Your task to perform on an android device: Search for Italian restaurants on Maps Image 0: 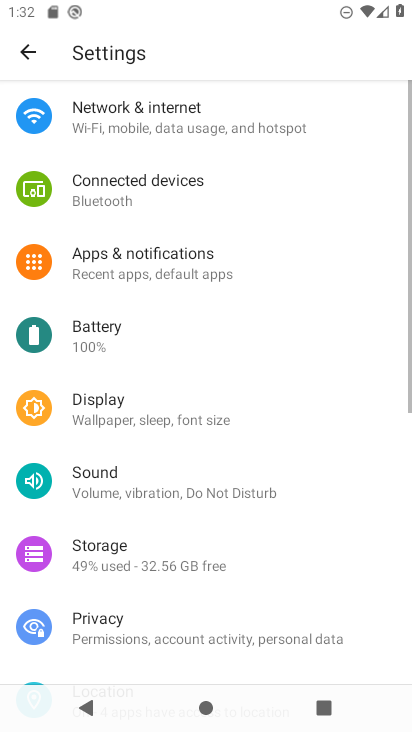
Step 0: click (126, 578)
Your task to perform on an android device: Search for Italian restaurants on Maps Image 1: 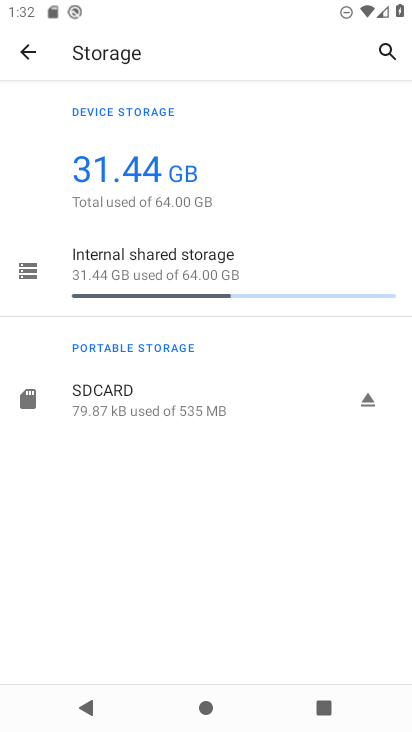
Step 1: press home button
Your task to perform on an android device: Search for Italian restaurants on Maps Image 2: 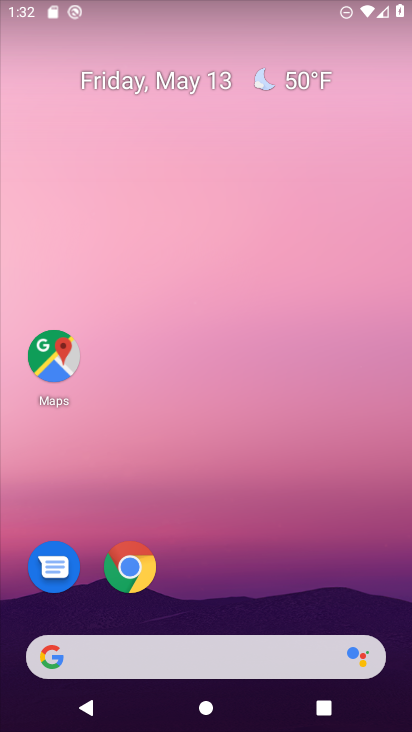
Step 2: click (59, 352)
Your task to perform on an android device: Search for Italian restaurants on Maps Image 3: 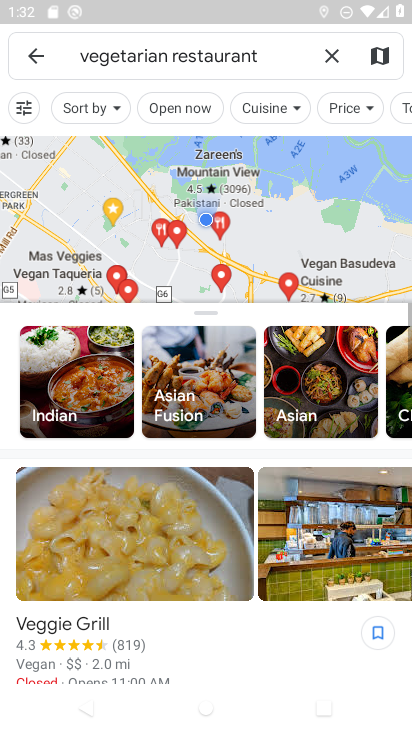
Step 3: click (327, 57)
Your task to perform on an android device: Search for Italian restaurants on Maps Image 4: 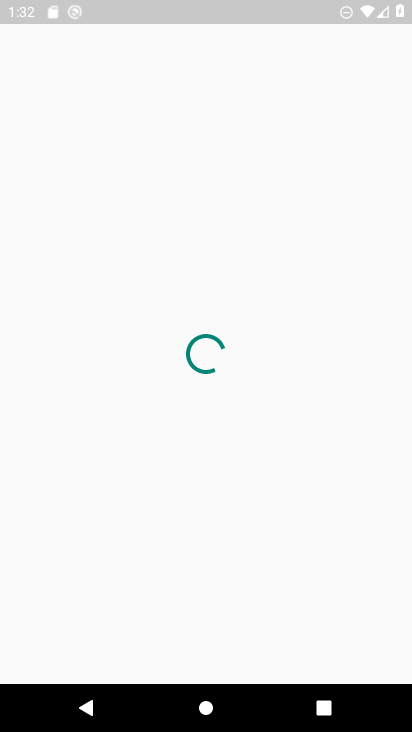
Step 4: click (268, 52)
Your task to perform on an android device: Search for Italian restaurants on Maps Image 5: 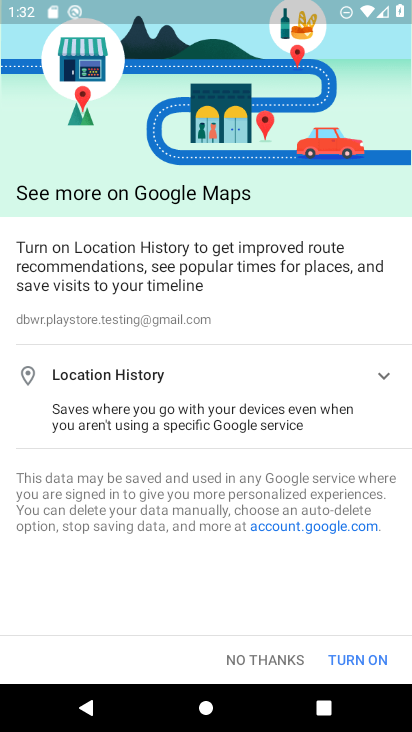
Step 5: click (348, 658)
Your task to perform on an android device: Search for Italian restaurants on Maps Image 6: 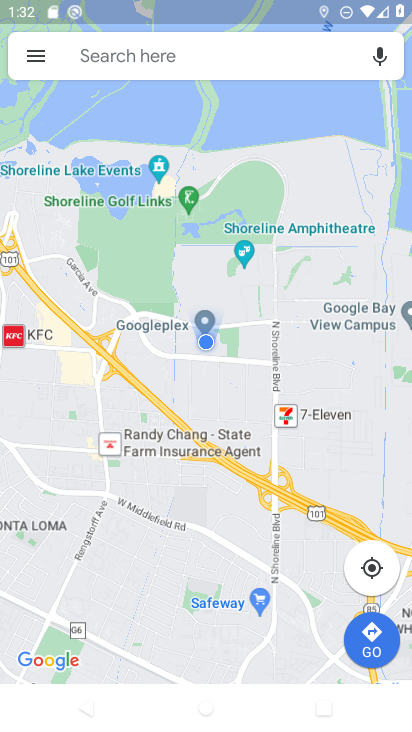
Step 6: click (130, 53)
Your task to perform on an android device: Search for Italian restaurants on Maps Image 7: 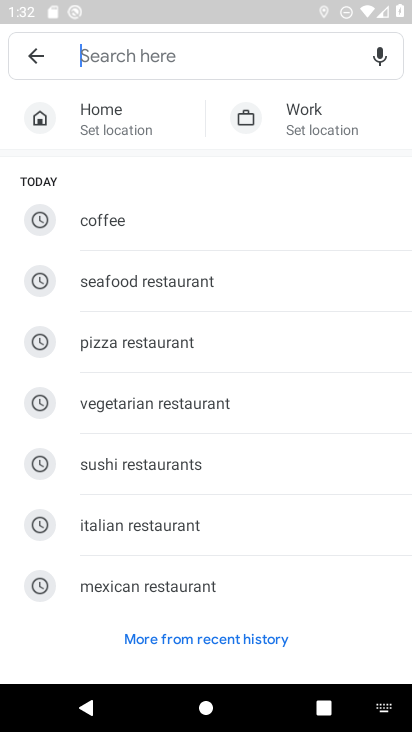
Step 7: click (151, 529)
Your task to perform on an android device: Search for Italian restaurants on Maps Image 8: 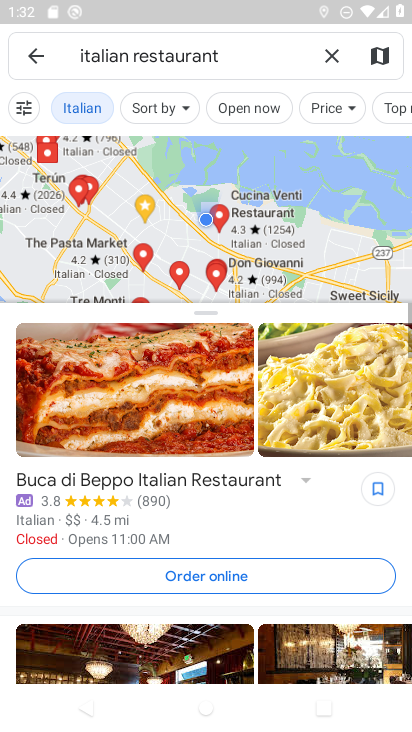
Step 8: task complete